Your task to perform on an android device: Go to Google Image 0: 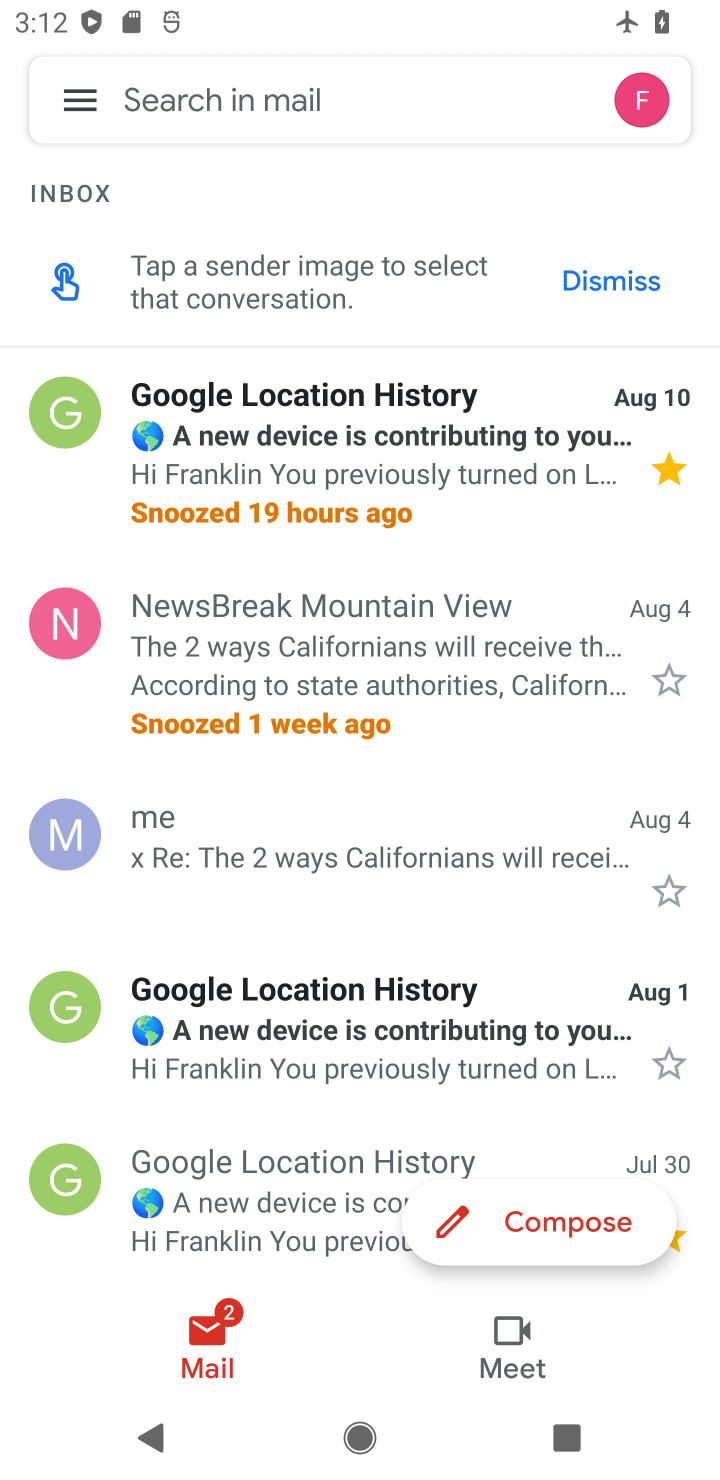
Step 0: press home button
Your task to perform on an android device: Go to Google Image 1: 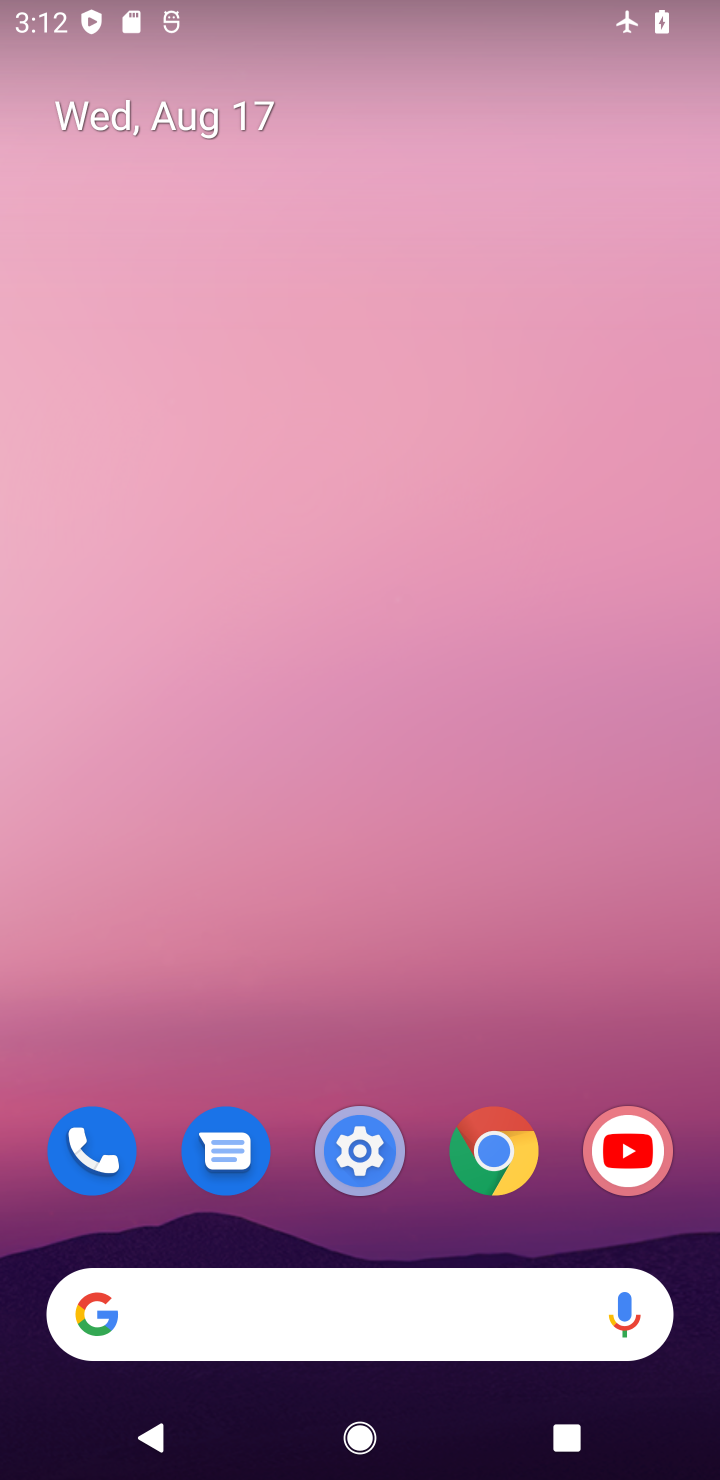
Step 1: drag from (265, 967) to (462, 257)
Your task to perform on an android device: Go to Google Image 2: 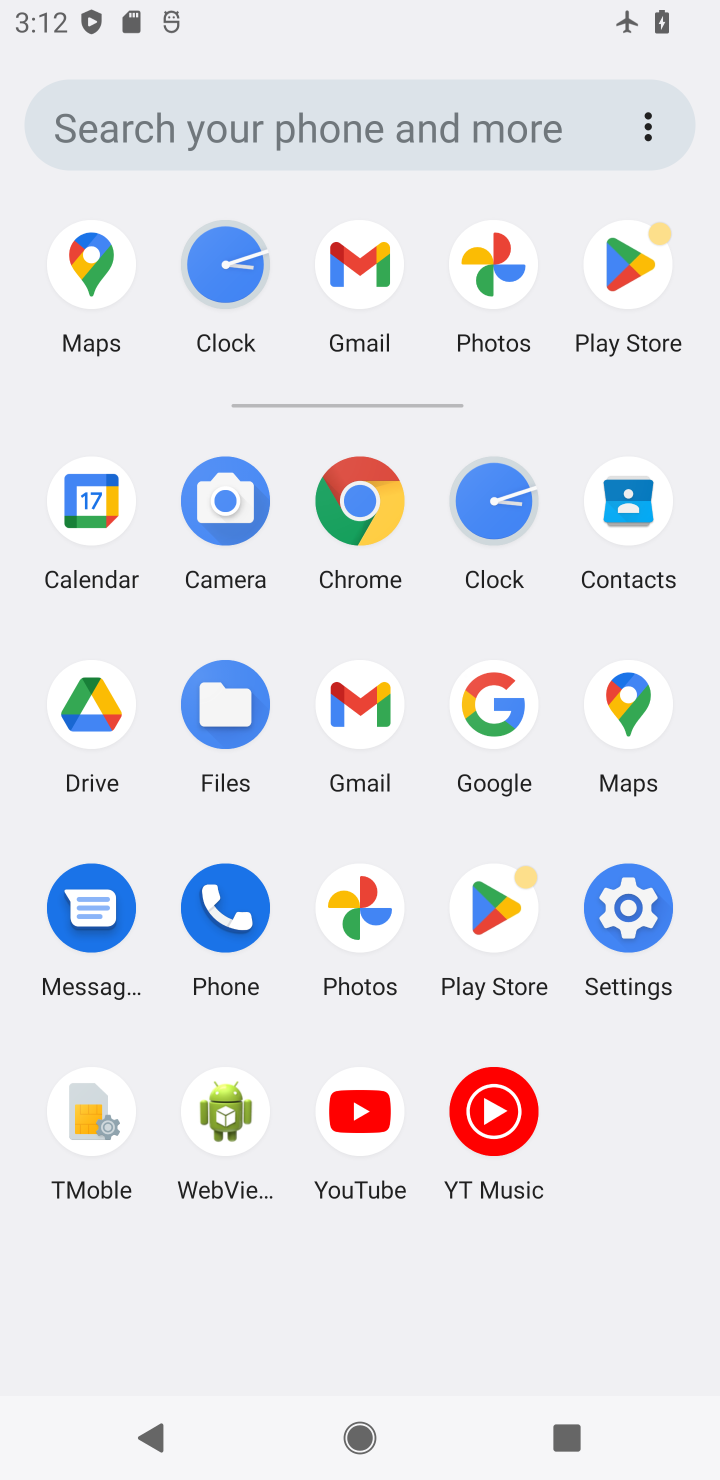
Step 2: click (480, 688)
Your task to perform on an android device: Go to Google Image 3: 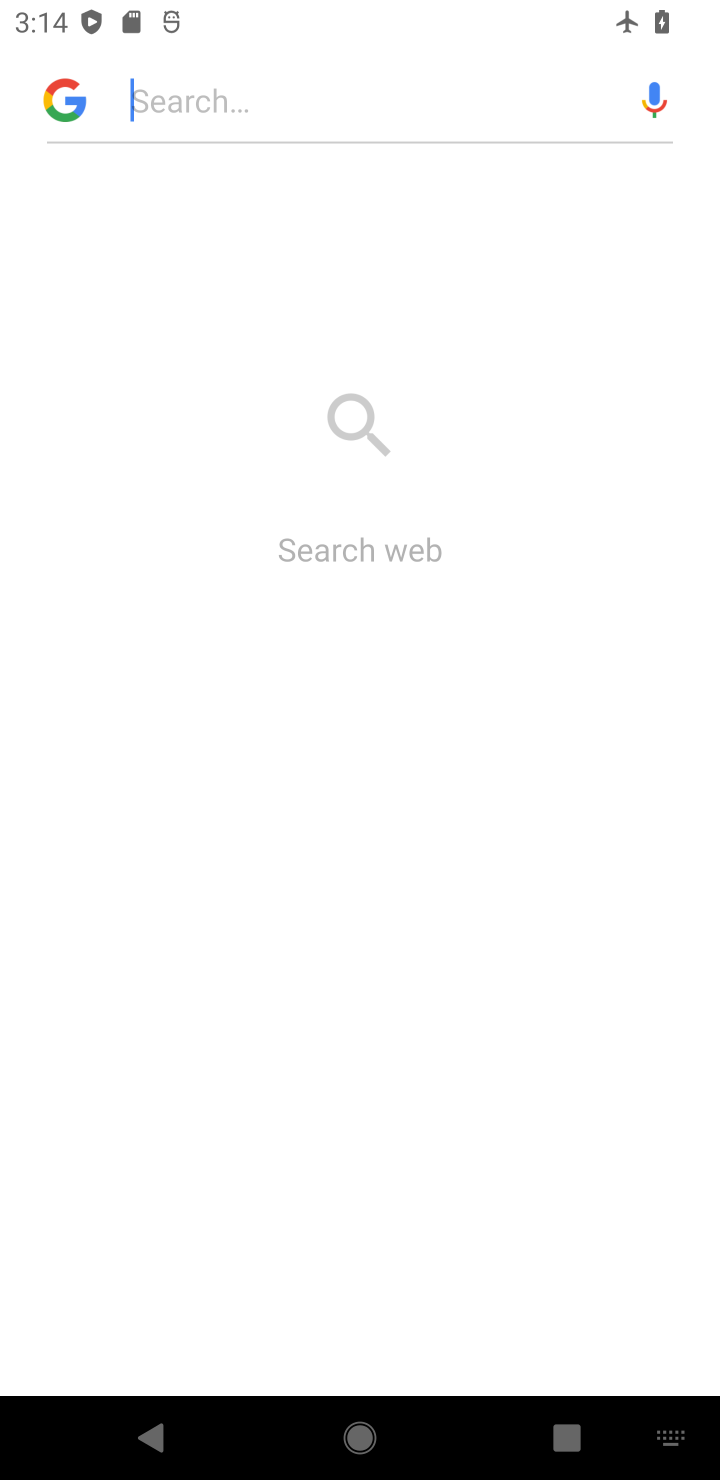
Step 3: task complete